Your task to perform on an android device: Go to wifi settings Image 0: 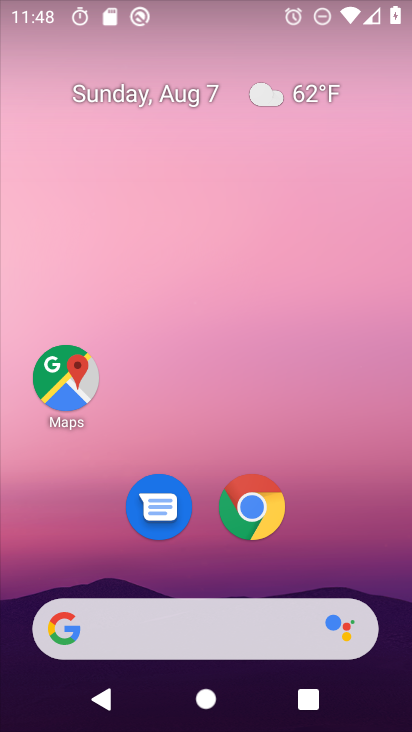
Step 0: drag from (337, 430) to (329, 0)
Your task to perform on an android device: Go to wifi settings Image 1: 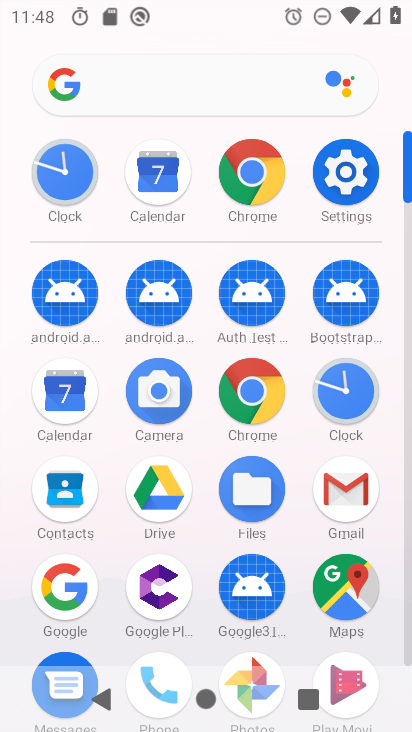
Step 1: click (348, 175)
Your task to perform on an android device: Go to wifi settings Image 2: 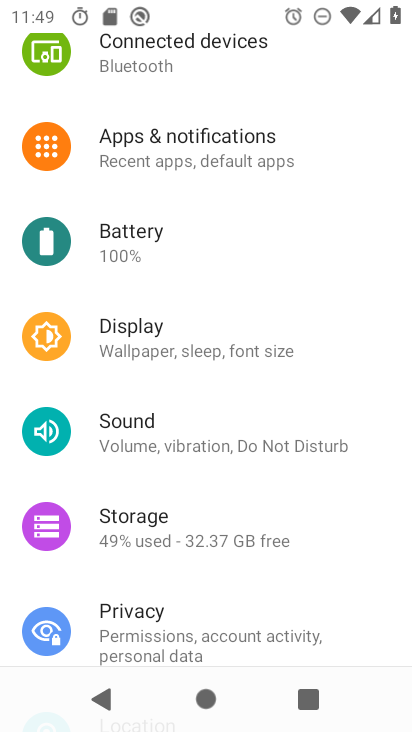
Step 2: drag from (329, 151) to (249, 566)
Your task to perform on an android device: Go to wifi settings Image 3: 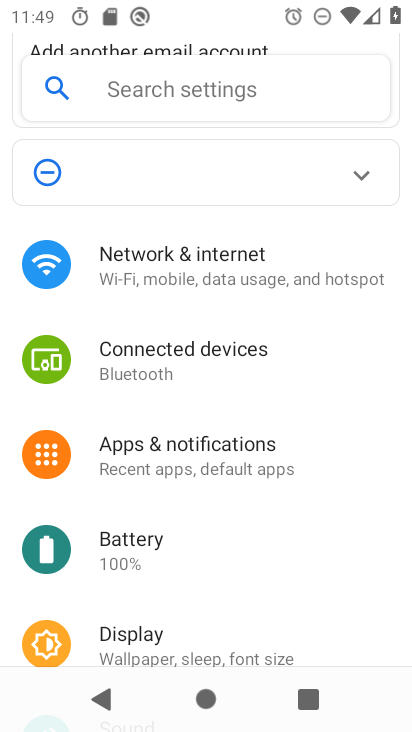
Step 3: click (179, 272)
Your task to perform on an android device: Go to wifi settings Image 4: 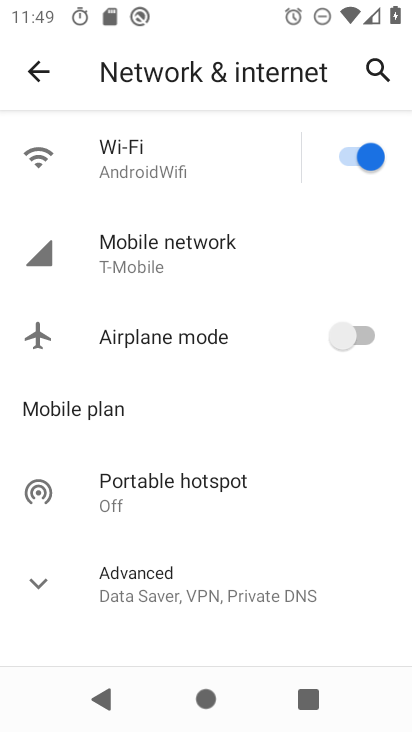
Step 4: click (165, 139)
Your task to perform on an android device: Go to wifi settings Image 5: 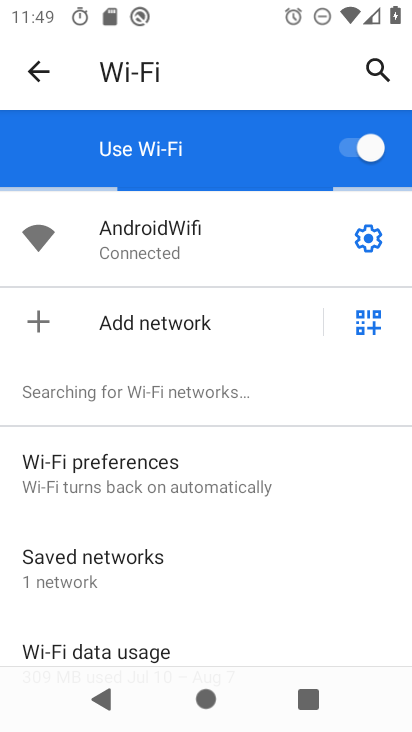
Step 5: click (361, 238)
Your task to perform on an android device: Go to wifi settings Image 6: 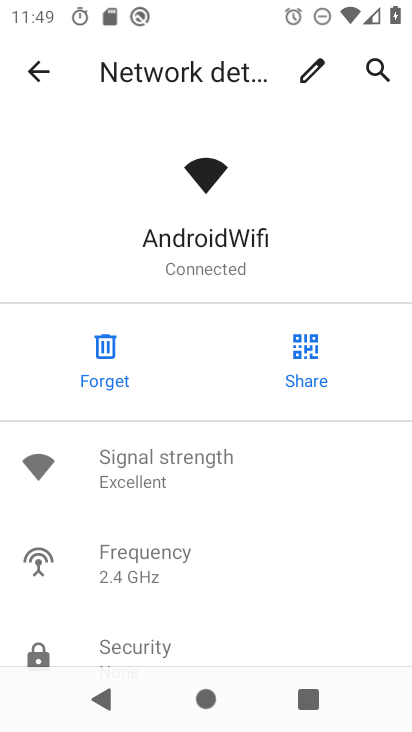
Step 6: task complete